Your task to perform on an android device: Open eBay Image 0: 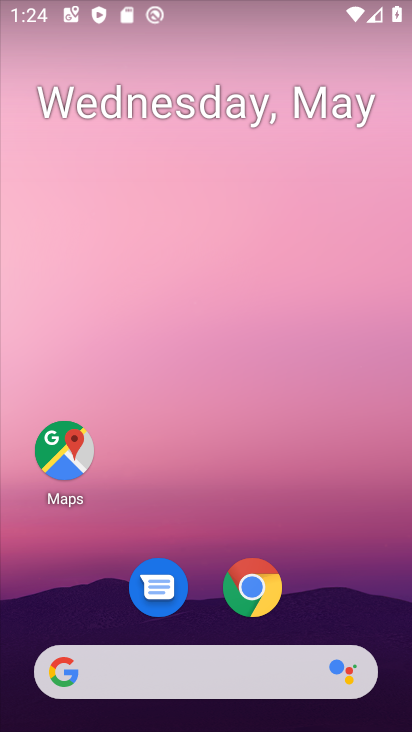
Step 0: click (274, 586)
Your task to perform on an android device: Open eBay Image 1: 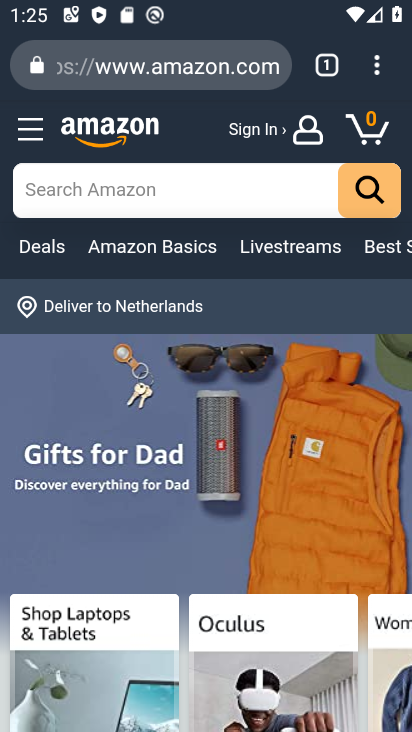
Step 1: click (349, 55)
Your task to perform on an android device: Open eBay Image 2: 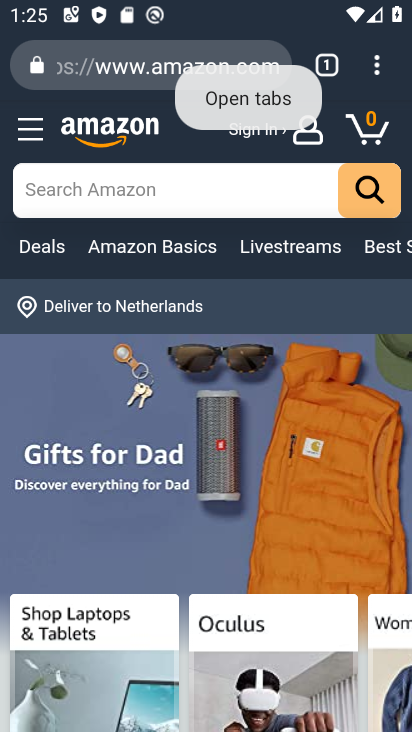
Step 2: click (329, 80)
Your task to perform on an android device: Open eBay Image 3: 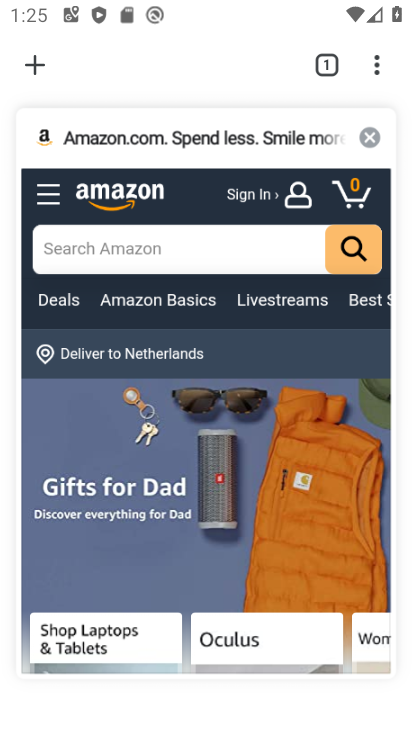
Step 3: click (375, 146)
Your task to perform on an android device: Open eBay Image 4: 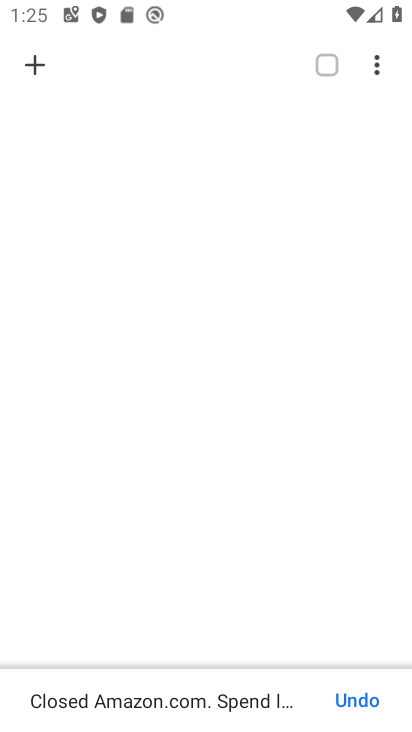
Step 4: click (31, 68)
Your task to perform on an android device: Open eBay Image 5: 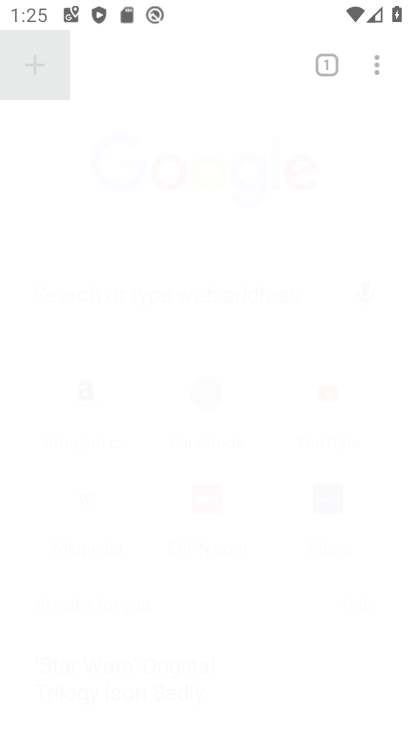
Step 5: drag from (128, 304) to (174, 349)
Your task to perform on an android device: Open eBay Image 6: 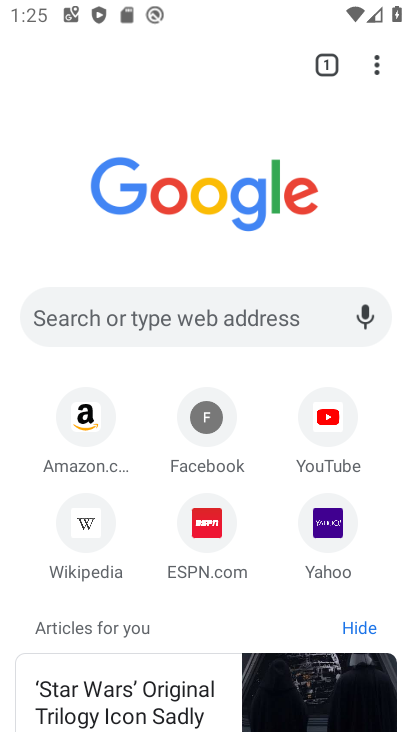
Step 6: click (209, 316)
Your task to perform on an android device: Open eBay Image 7: 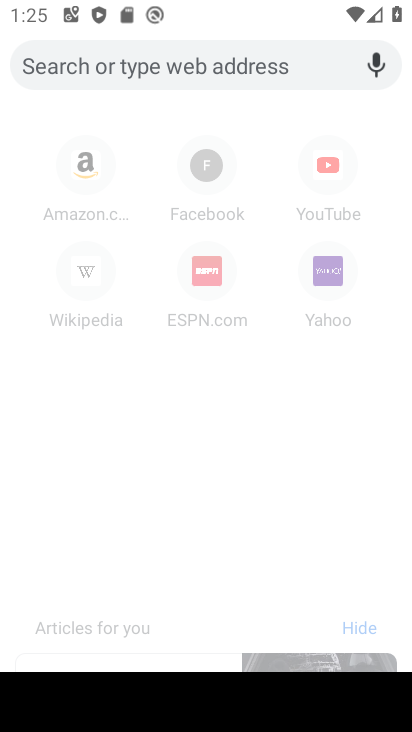
Step 7: type "ebay.com"
Your task to perform on an android device: Open eBay Image 8: 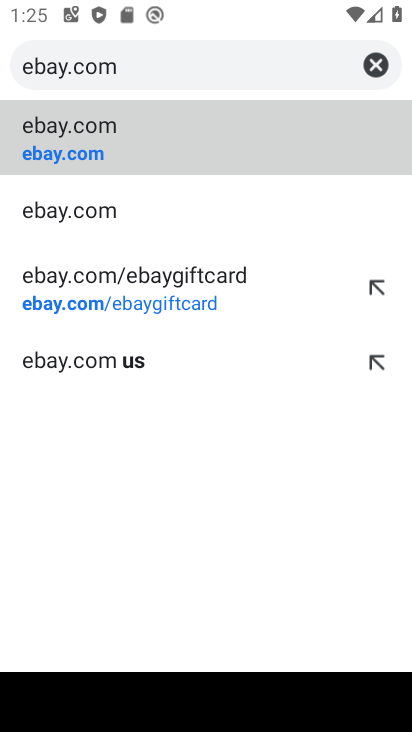
Step 8: click (79, 128)
Your task to perform on an android device: Open eBay Image 9: 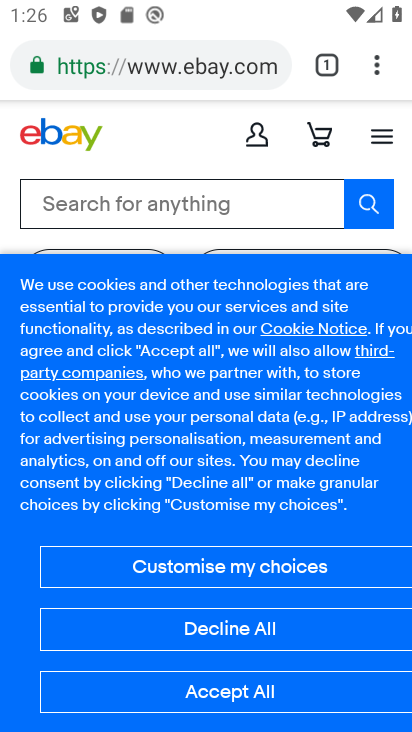
Step 9: task complete